Your task to perform on an android device: Search for "alienware aurora" on bestbuy, select the first entry, add it to the cart, then select checkout. Image 0: 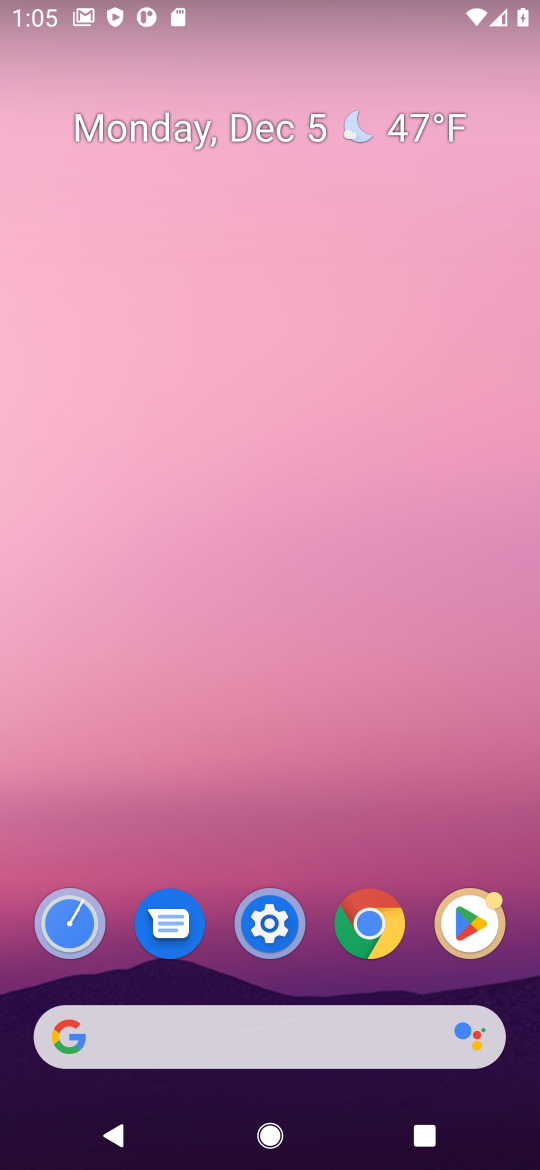
Step 0: click (287, 1038)
Your task to perform on an android device: Search for "alienware aurora" on bestbuy, select the first entry, add it to the cart, then select checkout. Image 1: 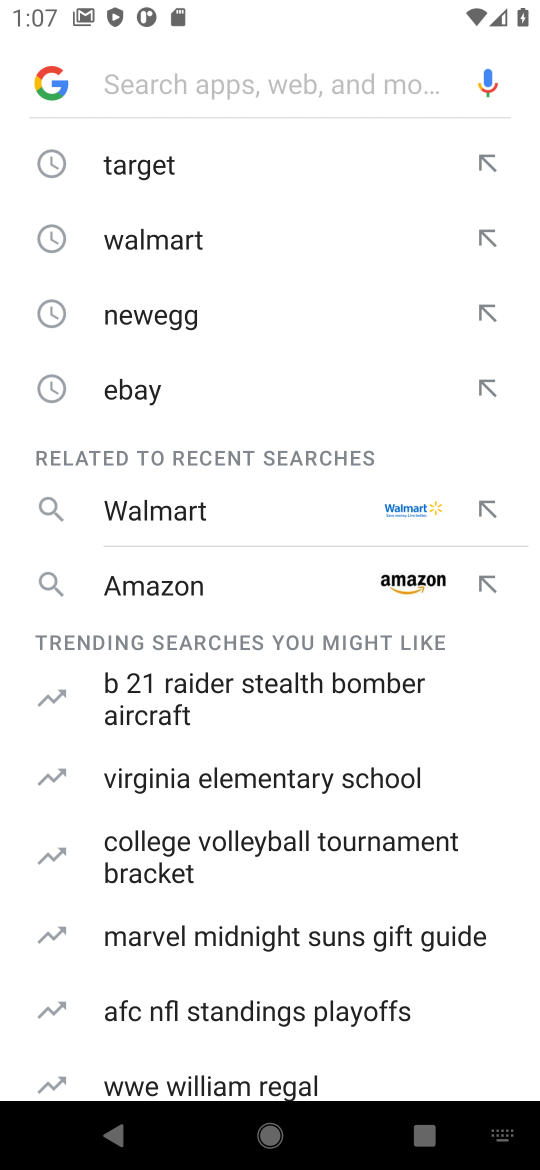
Step 1: task complete